Your task to perform on an android device: Open display settings Image 0: 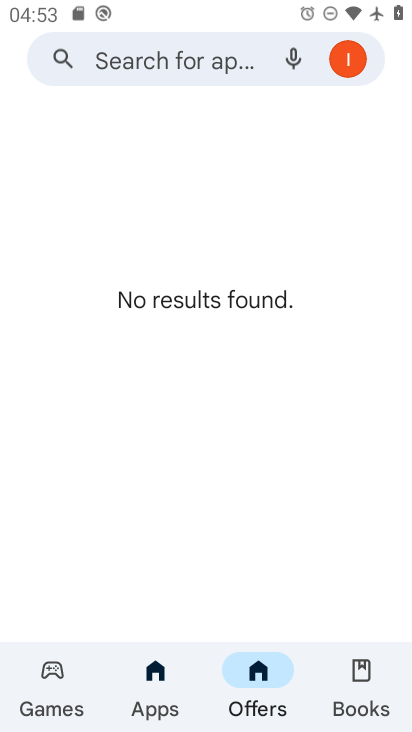
Step 0: press home button
Your task to perform on an android device: Open display settings Image 1: 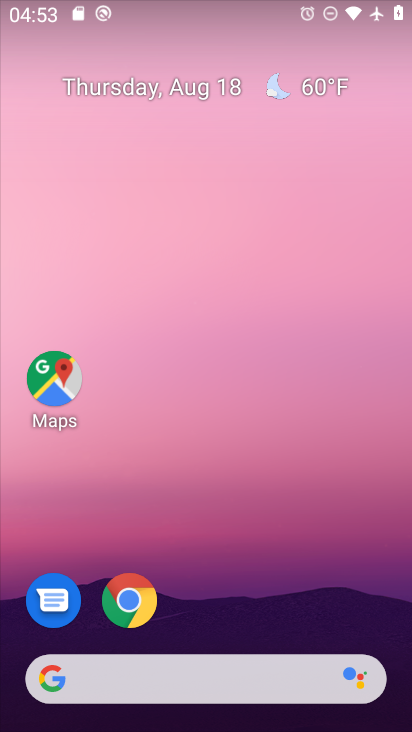
Step 1: drag from (214, 631) to (197, 3)
Your task to perform on an android device: Open display settings Image 2: 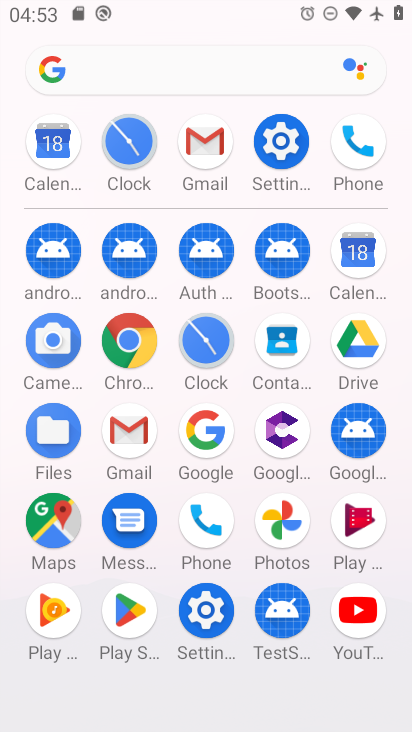
Step 2: click (290, 137)
Your task to perform on an android device: Open display settings Image 3: 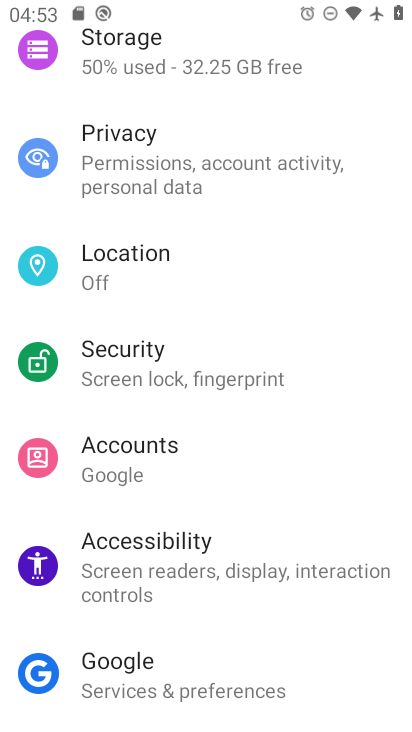
Step 3: drag from (262, 260) to (292, 501)
Your task to perform on an android device: Open display settings Image 4: 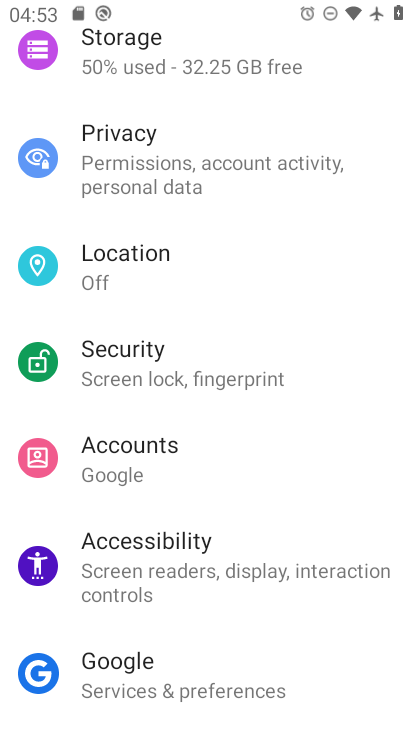
Step 4: drag from (226, 113) to (256, 492)
Your task to perform on an android device: Open display settings Image 5: 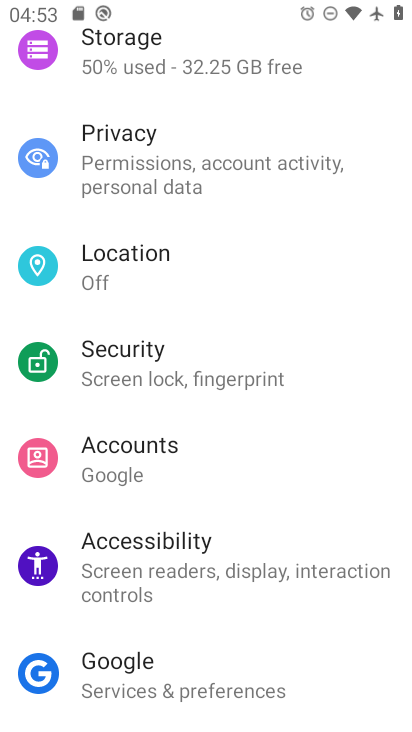
Step 5: drag from (218, 316) to (276, 620)
Your task to perform on an android device: Open display settings Image 6: 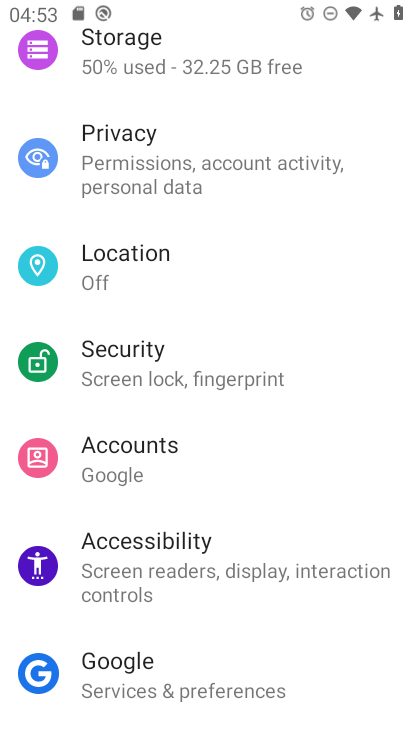
Step 6: drag from (298, 609) to (291, 63)
Your task to perform on an android device: Open display settings Image 7: 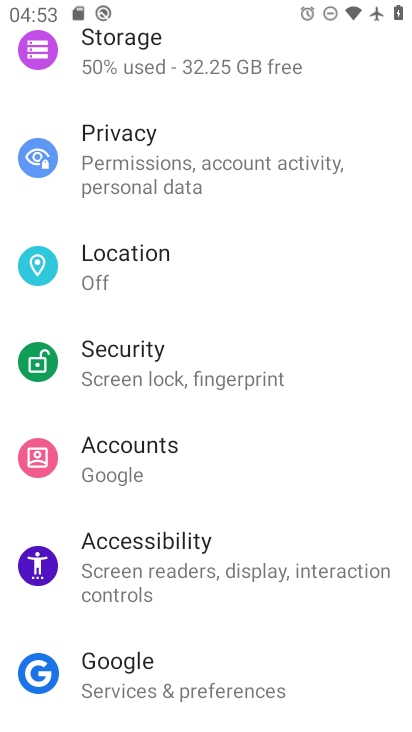
Step 7: drag from (256, 199) to (320, 687)
Your task to perform on an android device: Open display settings Image 8: 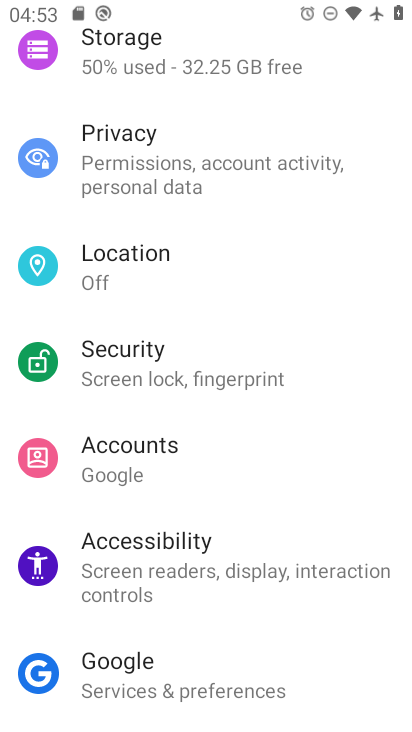
Step 8: drag from (264, 233) to (330, 662)
Your task to perform on an android device: Open display settings Image 9: 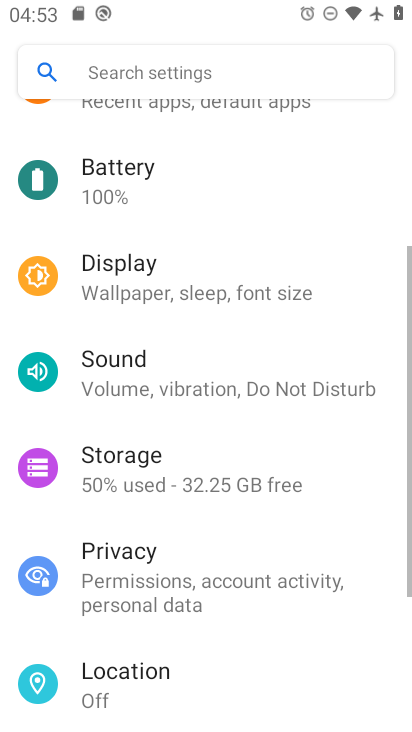
Step 9: drag from (236, 120) to (244, 449)
Your task to perform on an android device: Open display settings Image 10: 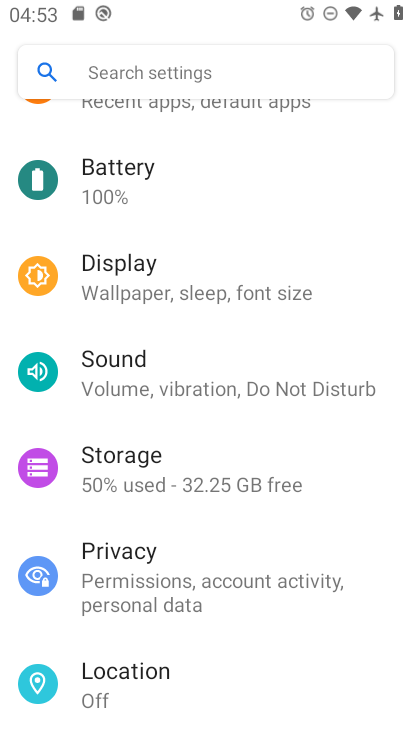
Step 10: click (111, 285)
Your task to perform on an android device: Open display settings Image 11: 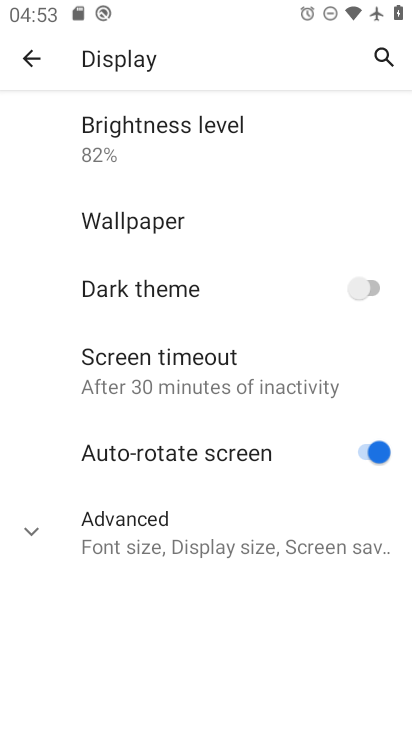
Step 11: task complete